Your task to perform on an android device: toggle improve location accuracy Image 0: 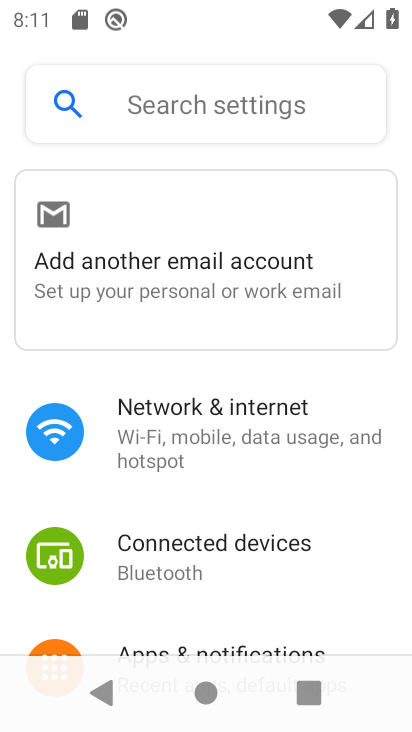
Step 0: press home button
Your task to perform on an android device: toggle improve location accuracy Image 1: 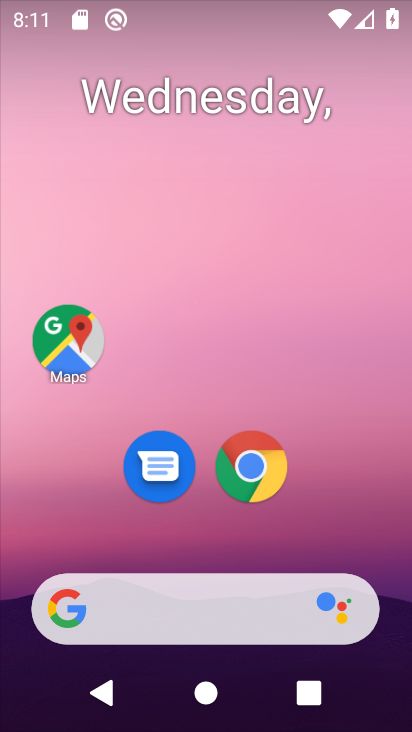
Step 1: drag from (190, 710) to (141, 152)
Your task to perform on an android device: toggle improve location accuracy Image 2: 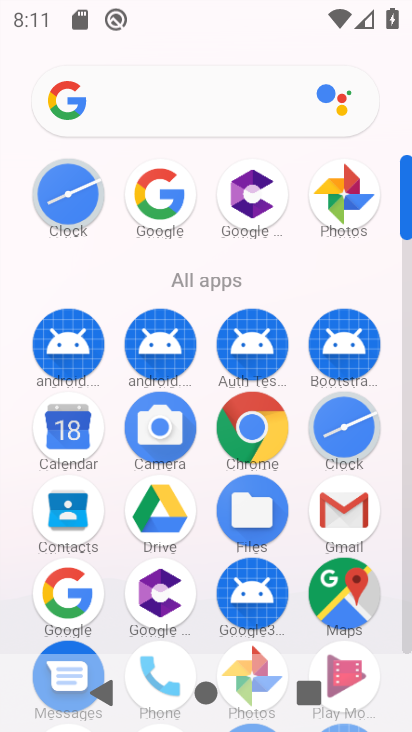
Step 2: drag from (209, 593) to (181, 166)
Your task to perform on an android device: toggle improve location accuracy Image 3: 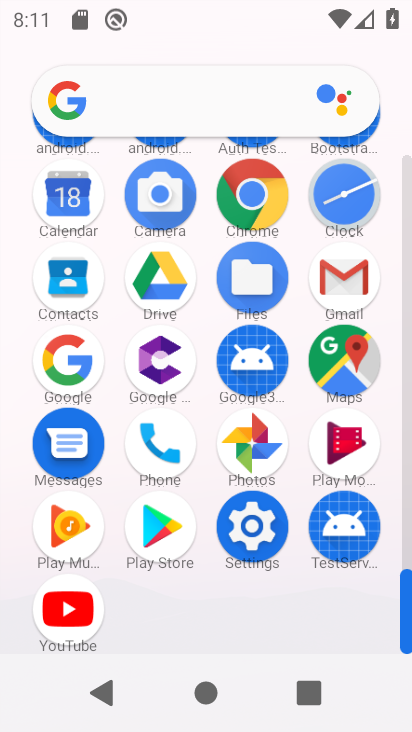
Step 3: click (259, 524)
Your task to perform on an android device: toggle improve location accuracy Image 4: 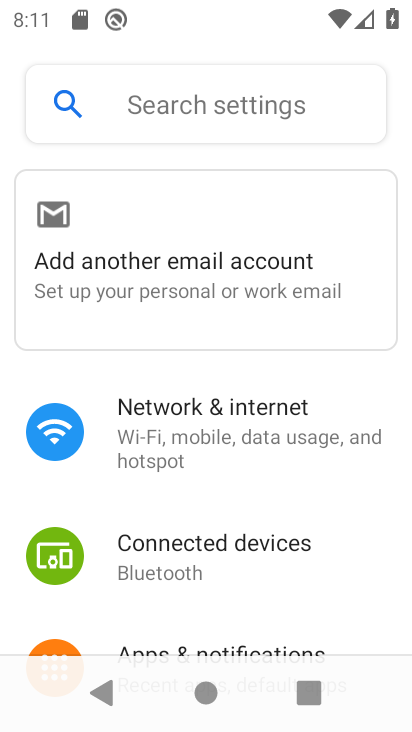
Step 4: drag from (232, 596) to (237, 237)
Your task to perform on an android device: toggle improve location accuracy Image 5: 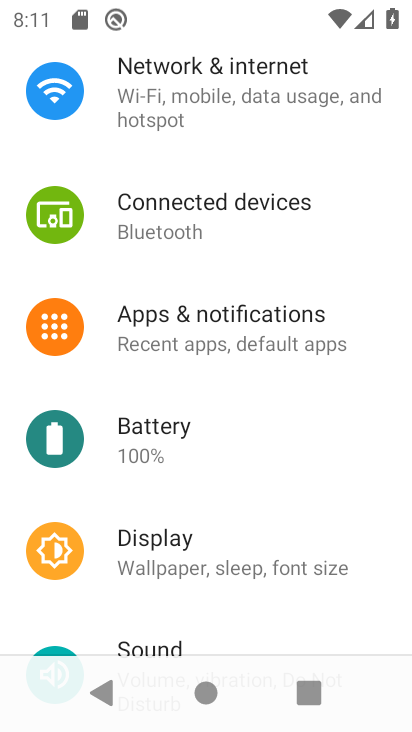
Step 5: drag from (215, 574) to (209, 236)
Your task to perform on an android device: toggle improve location accuracy Image 6: 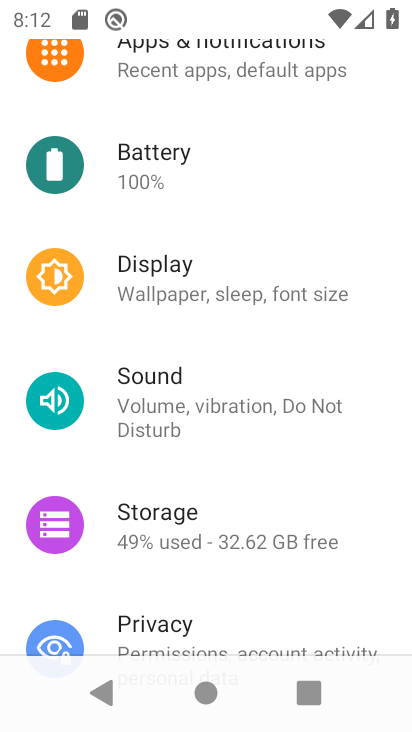
Step 6: drag from (209, 607) to (215, 174)
Your task to perform on an android device: toggle improve location accuracy Image 7: 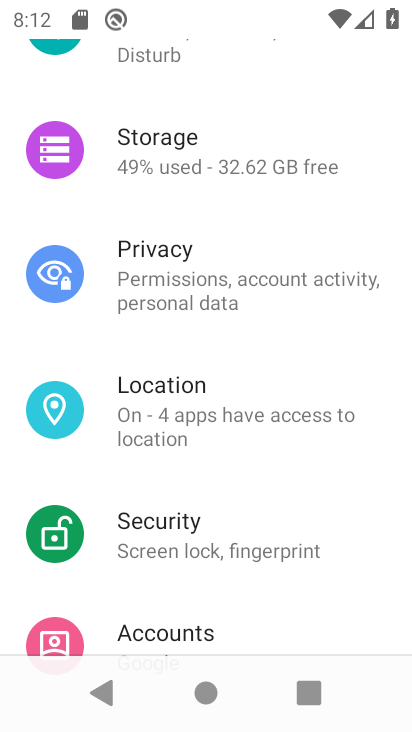
Step 7: click (145, 397)
Your task to perform on an android device: toggle improve location accuracy Image 8: 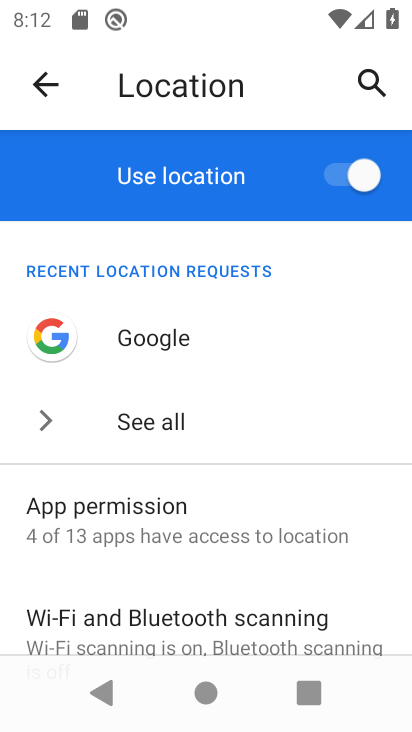
Step 8: drag from (148, 304) to (147, 196)
Your task to perform on an android device: toggle improve location accuracy Image 9: 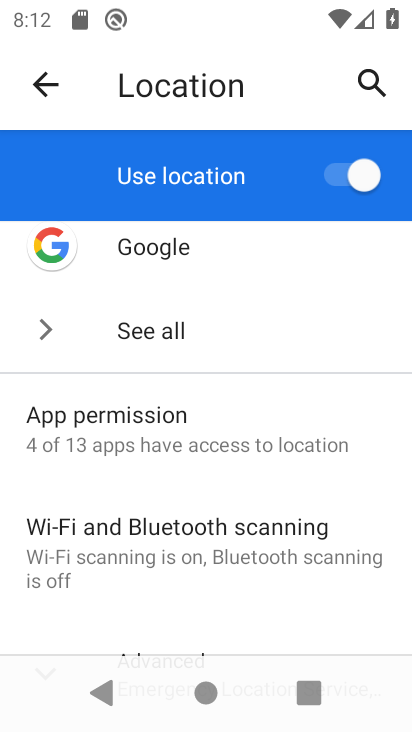
Step 9: drag from (180, 541) to (147, 223)
Your task to perform on an android device: toggle improve location accuracy Image 10: 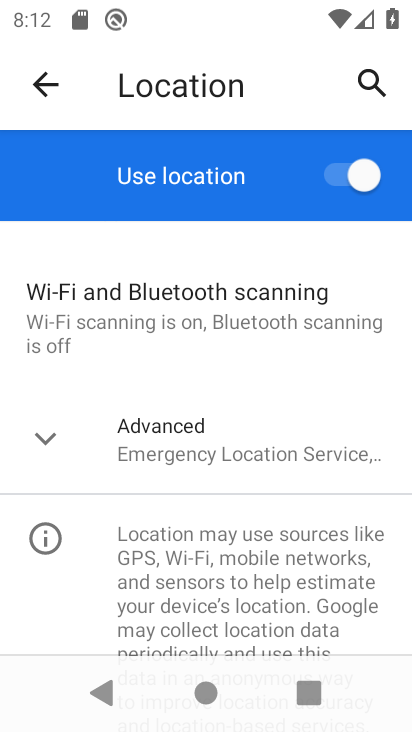
Step 10: click (217, 618)
Your task to perform on an android device: toggle improve location accuracy Image 11: 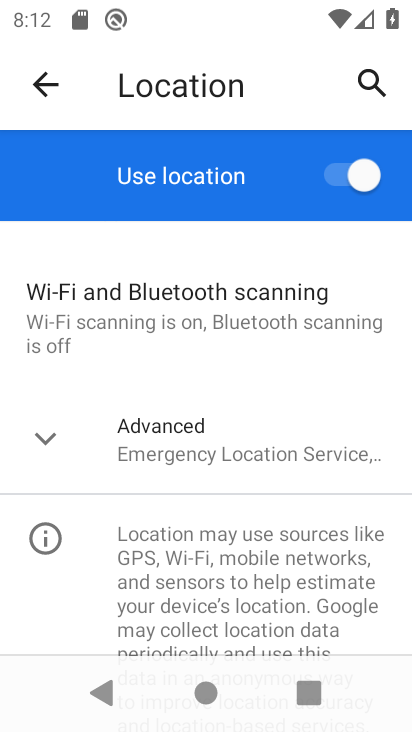
Step 11: click (170, 445)
Your task to perform on an android device: toggle improve location accuracy Image 12: 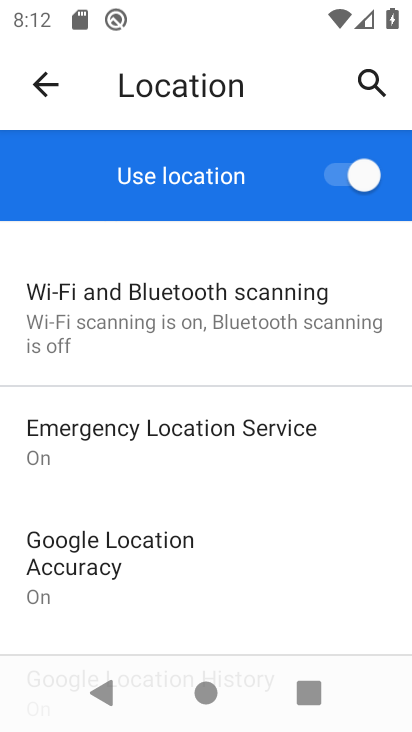
Step 12: click (76, 540)
Your task to perform on an android device: toggle improve location accuracy Image 13: 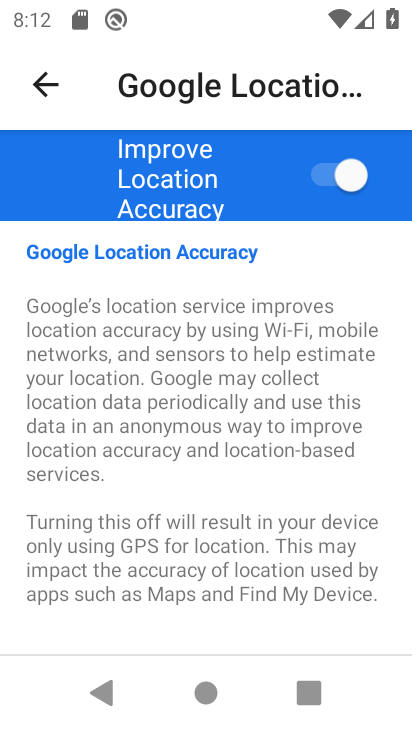
Step 13: click (326, 180)
Your task to perform on an android device: toggle improve location accuracy Image 14: 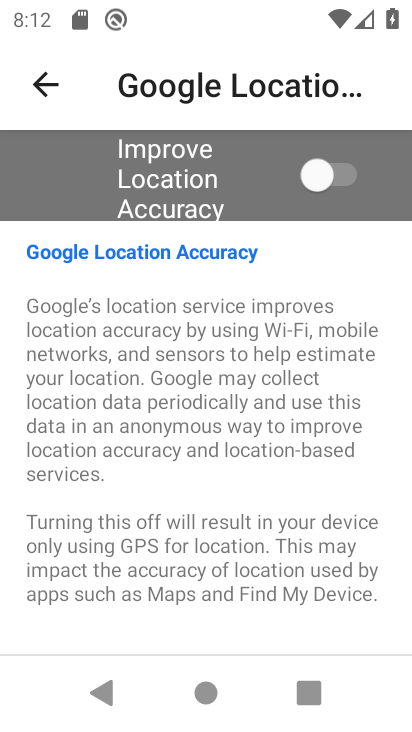
Step 14: task complete